Your task to perform on an android device: Open calendar and show me the second week of next month Image 0: 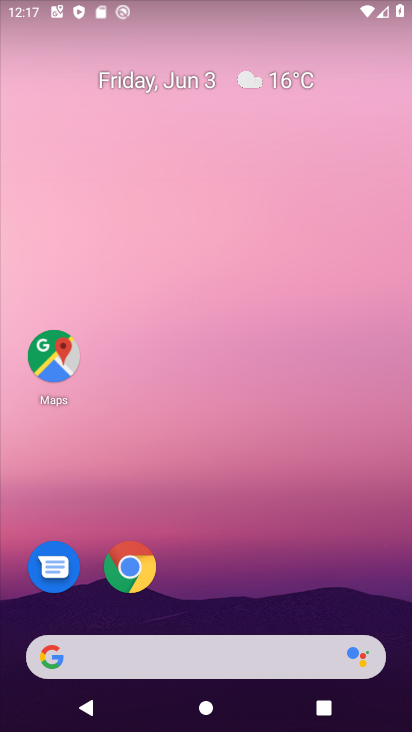
Step 0: drag from (244, 592) to (275, 278)
Your task to perform on an android device: Open calendar and show me the second week of next month Image 1: 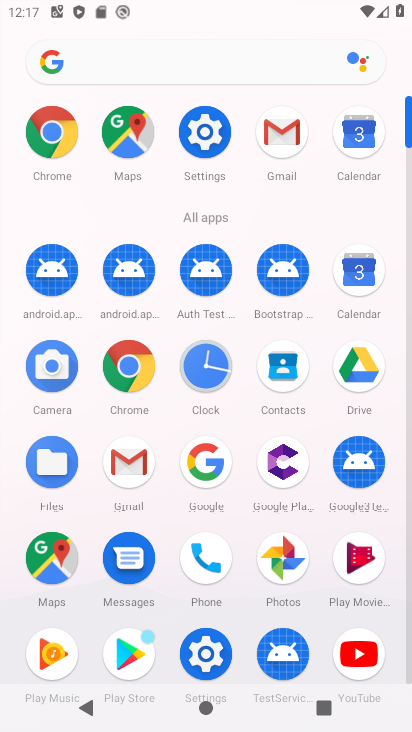
Step 1: click (368, 271)
Your task to perform on an android device: Open calendar and show me the second week of next month Image 2: 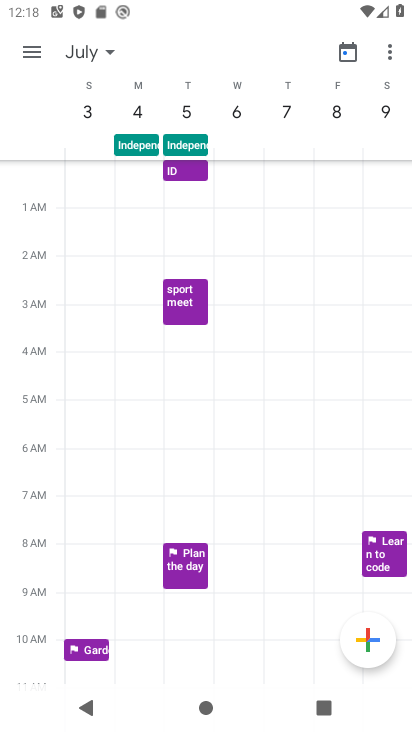
Step 2: click (93, 45)
Your task to perform on an android device: Open calendar and show me the second week of next month Image 3: 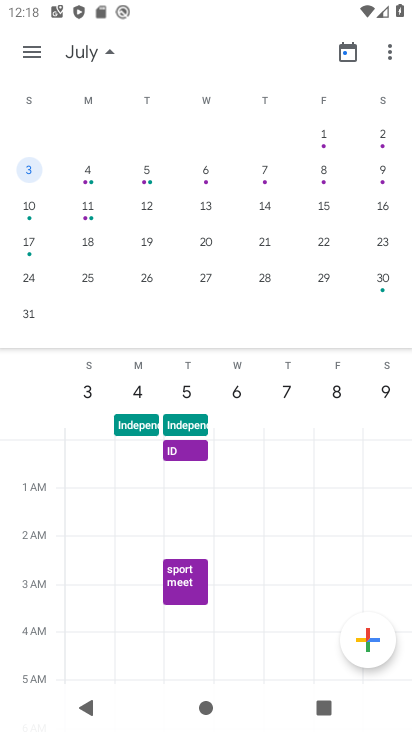
Step 3: click (82, 209)
Your task to perform on an android device: Open calendar and show me the second week of next month Image 4: 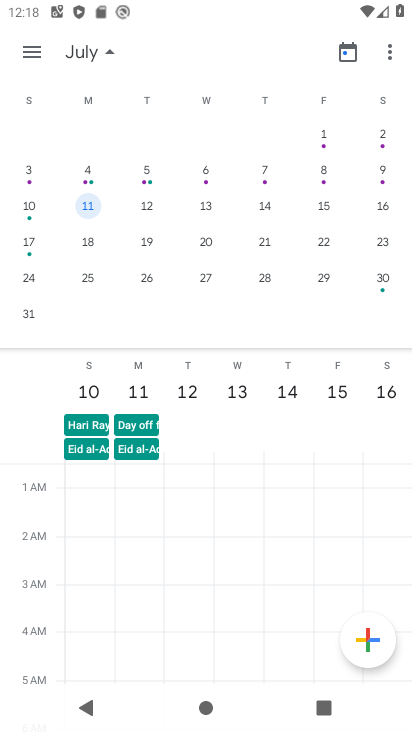
Step 4: task complete